Your task to perform on an android device: Open internet settings Image 0: 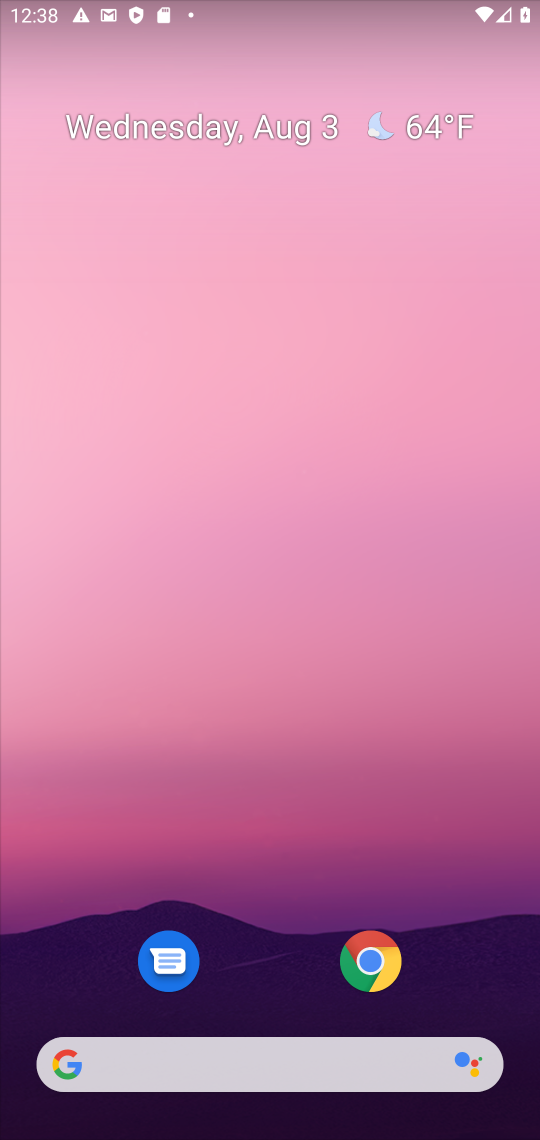
Step 0: drag from (268, 929) to (350, 39)
Your task to perform on an android device: Open internet settings Image 1: 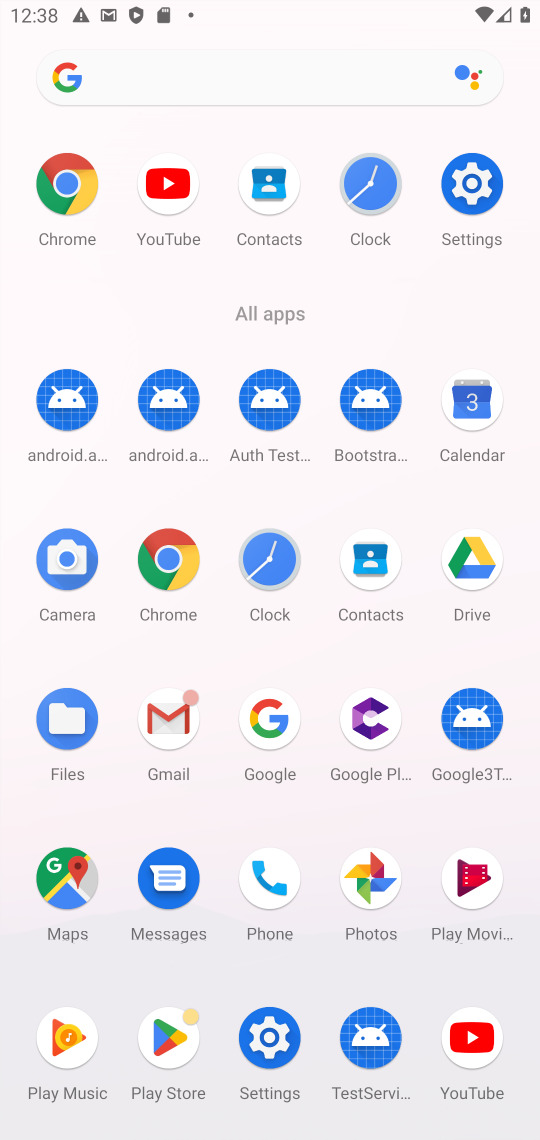
Step 1: click (470, 189)
Your task to perform on an android device: Open internet settings Image 2: 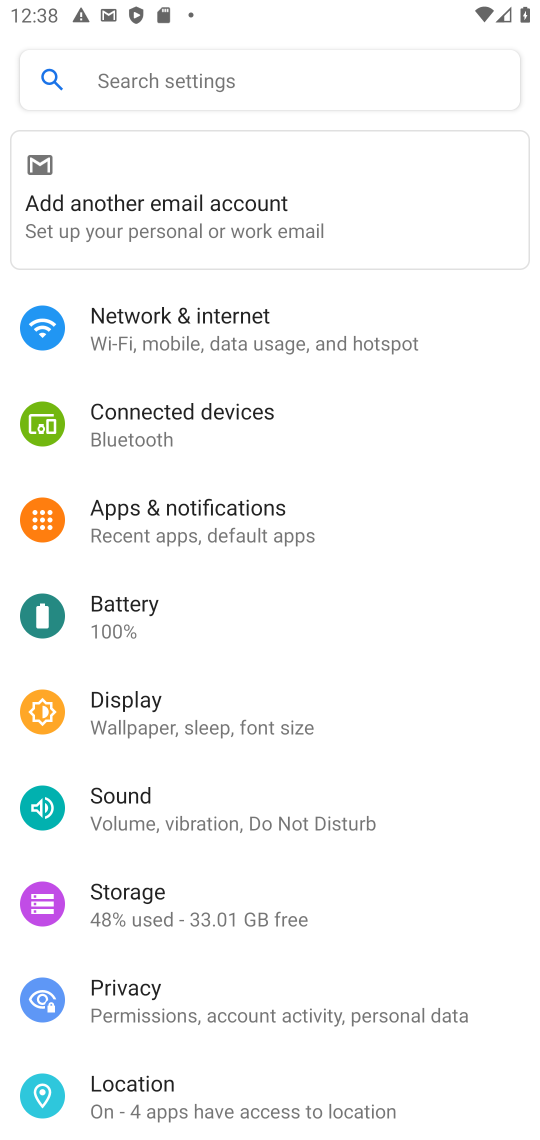
Step 2: click (197, 330)
Your task to perform on an android device: Open internet settings Image 3: 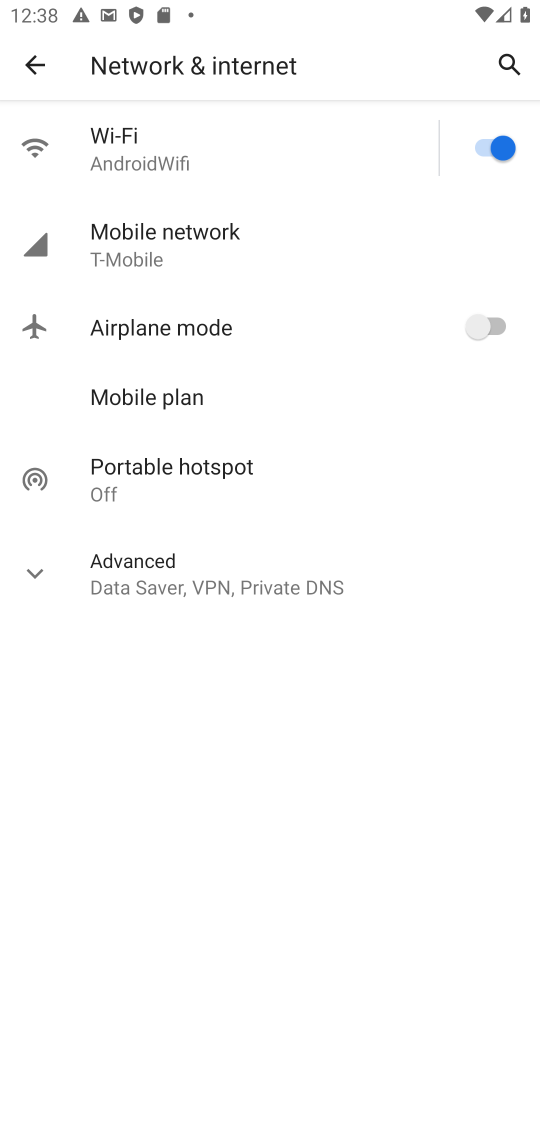
Step 3: click (34, 590)
Your task to perform on an android device: Open internet settings Image 4: 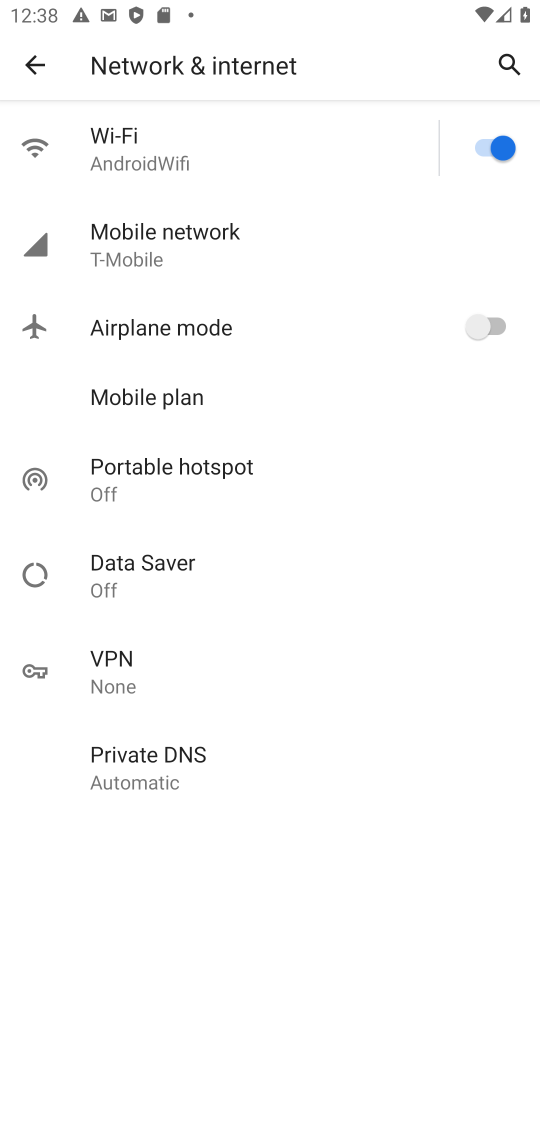
Step 4: task complete